Your task to perform on an android device: change the clock display to analog Image 0: 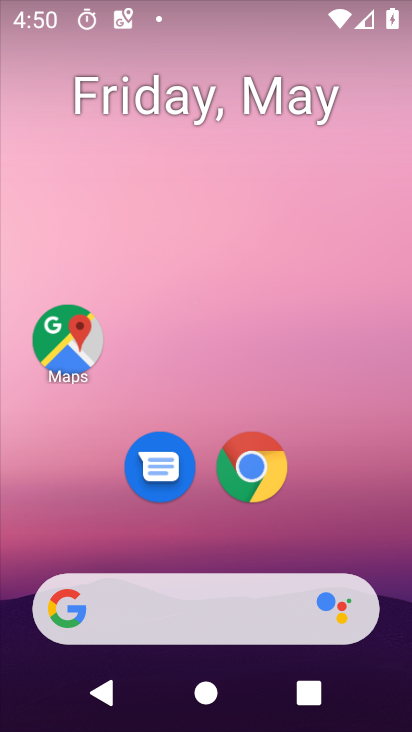
Step 0: drag from (346, 490) to (308, 91)
Your task to perform on an android device: change the clock display to analog Image 1: 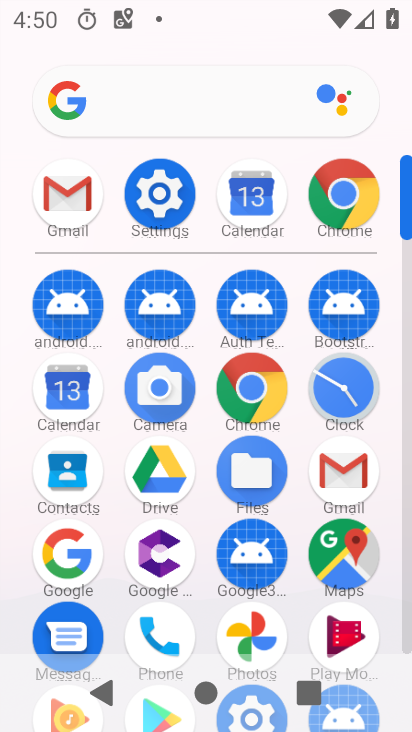
Step 1: click (339, 395)
Your task to perform on an android device: change the clock display to analog Image 2: 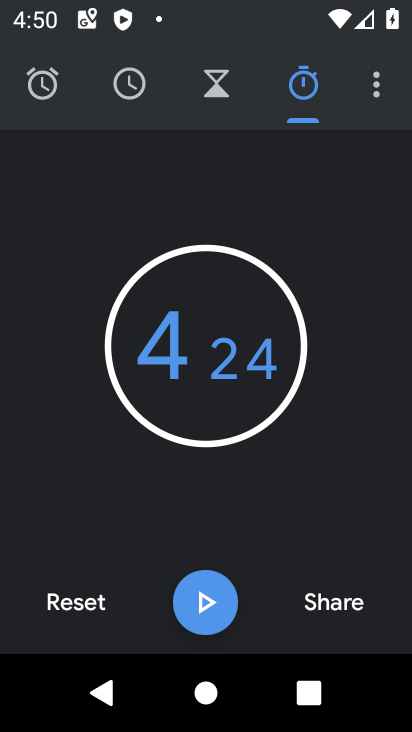
Step 2: click (376, 83)
Your task to perform on an android device: change the clock display to analog Image 3: 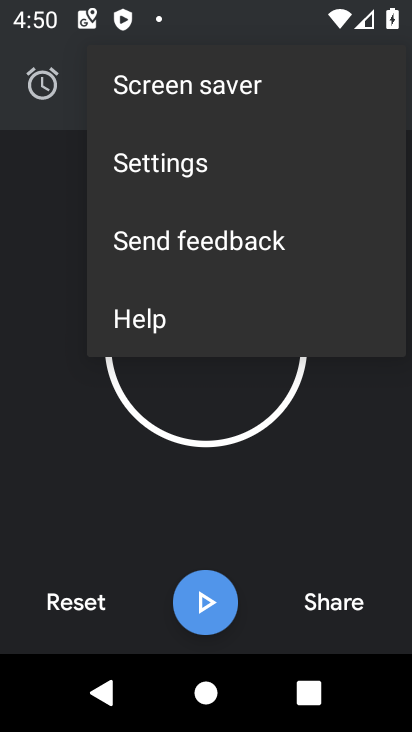
Step 3: click (216, 160)
Your task to perform on an android device: change the clock display to analog Image 4: 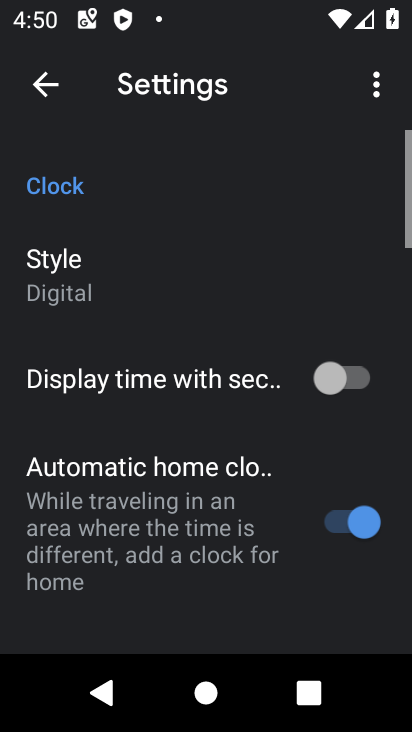
Step 4: click (68, 292)
Your task to perform on an android device: change the clock display to analog Image 5: 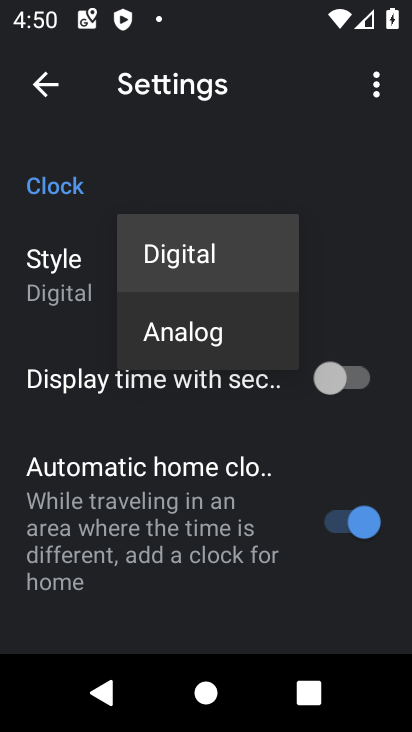
Step 5: click (142, 323)
Your task to perform on an android device: change the clock display to analog Image 6: 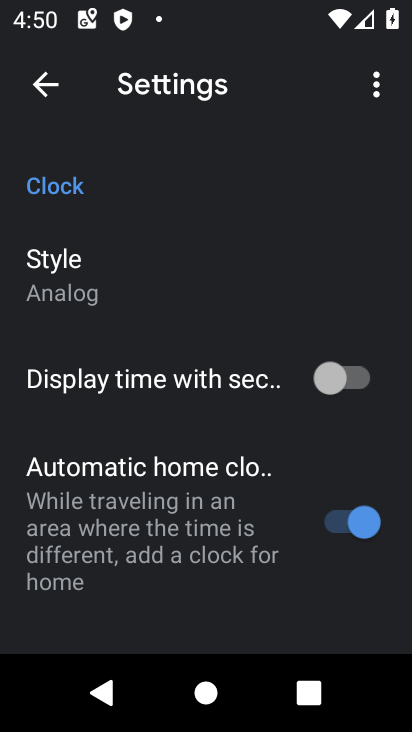
Step 6: task complete